Your task to perform on an android device: toggle translation in the chrome app Image 0: 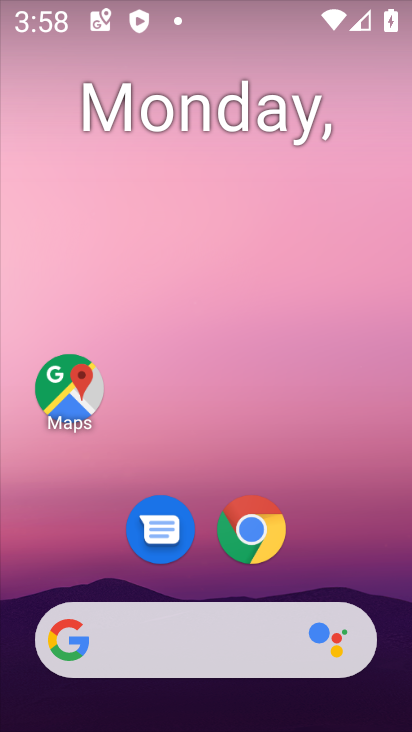
Step 0: click (254, 527)
Your task to perform on an android device: toggle translation in the chrome app Image 1: 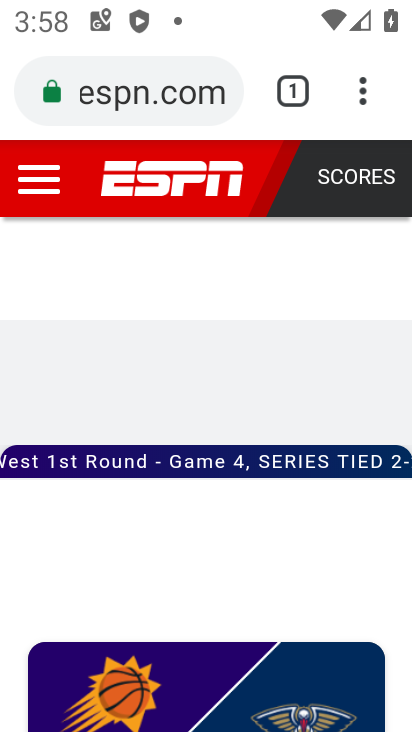
Step 1: click (361, 82)
Your task to perform on an android device: toggle translation in the chrome app Image 2: 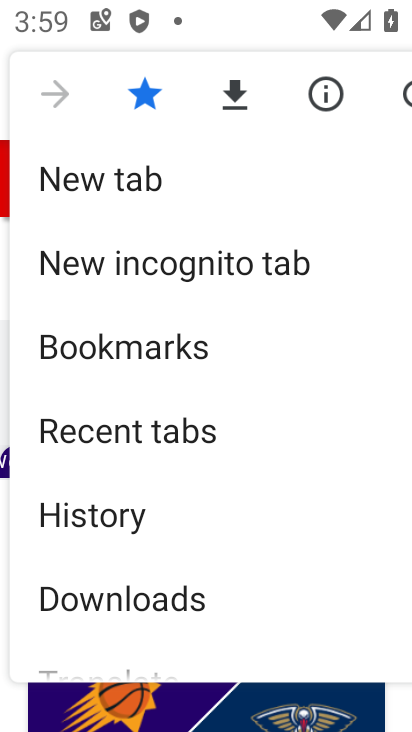
Step 2: drag from (167, 611) to (173, 342)
Your task to perform on an android device: toggle translation in the chrome app Image 3: 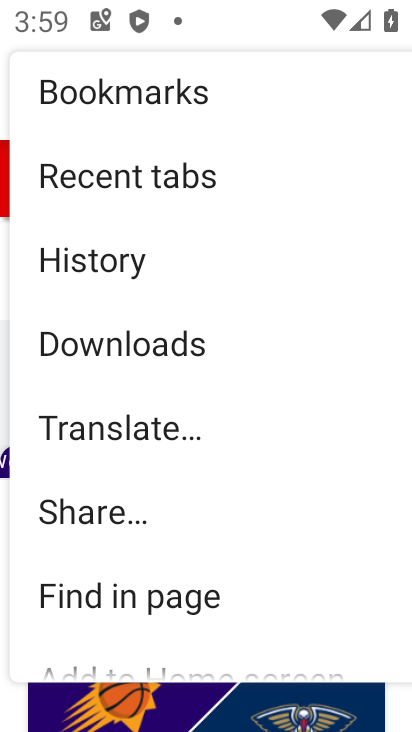
Step 3: drag from (149, 635) to (149, 377)
Your task to perform on an android device: toggle translation in the chrome app Image 4: 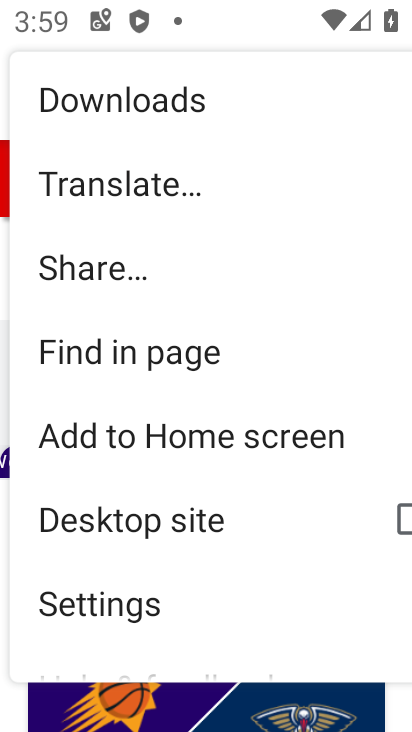
Step 4: click (102, 605)
Your task to perform on an android device: toggle translation in the chrome app Image 5: 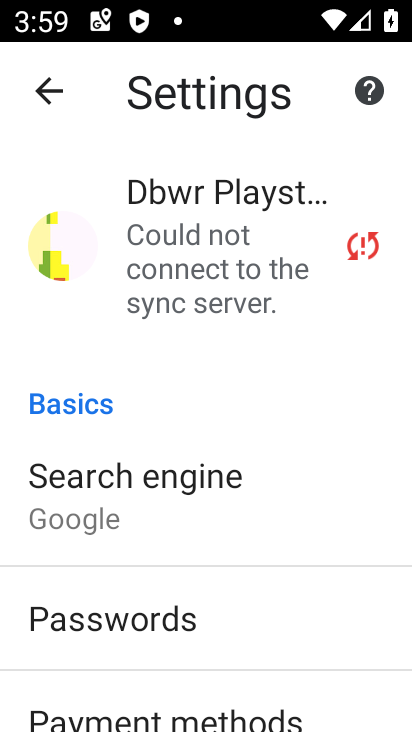
Step 5: drag from (176, 697) to (231, 353)
Your task to perform on an android device: toggle translation in the chrome app Image 6: 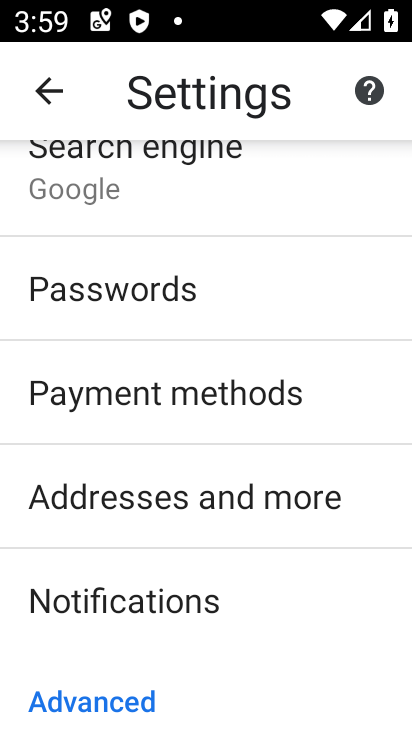
Step 6: drag from (178, 649) to (206, 381)
Your task to perform on an android device: toggle translation in the chrome app Image 7: 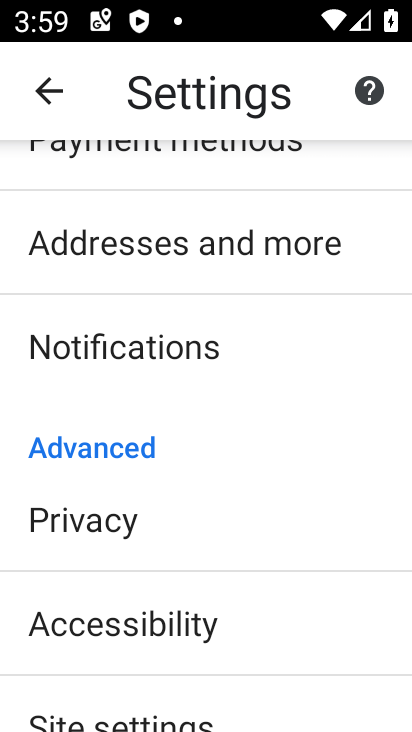
Step 7: drag from (130, 690) to (144, 317)
Your task to perform on an android device: toggle translation in the chrome app Image 8: 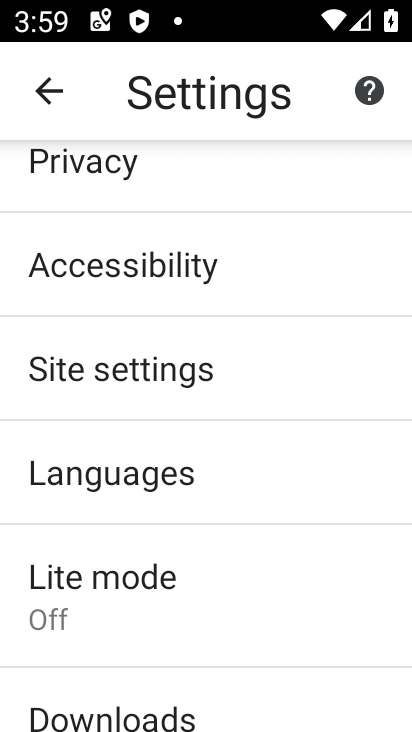
Step 8: click (119, 469)
Your task to perform on an android device: toggle translation in the chrome app Image 9: 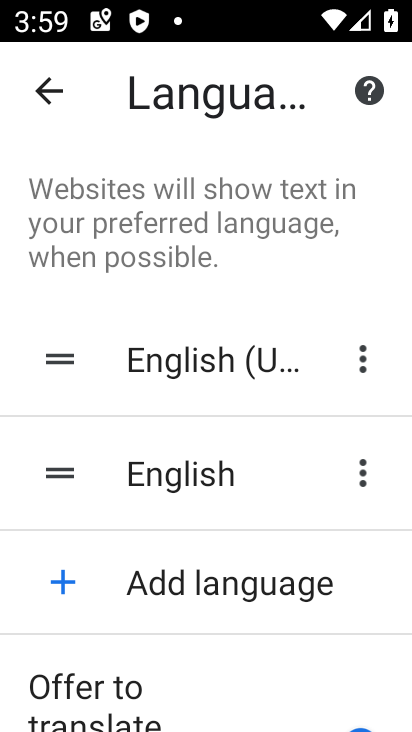
Step 9: drag from (274, 694) to (281, 358)
Your task to perform on an android device: toggle translation in the chrome app Image 10: 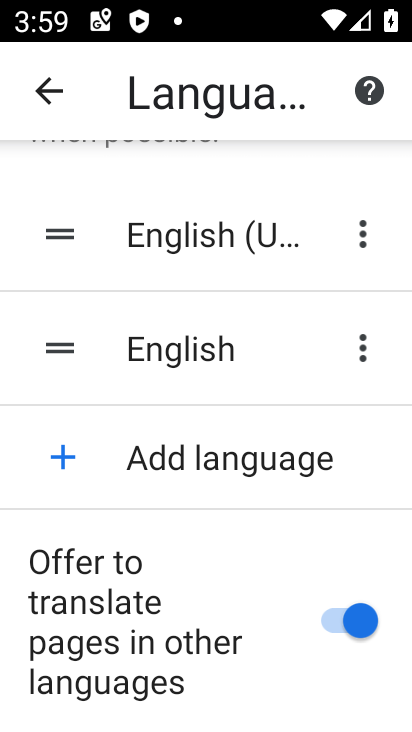
Step 10: click (333, 616)
Your task to perform on an android device: toggle translation in the chrome app Image 11: 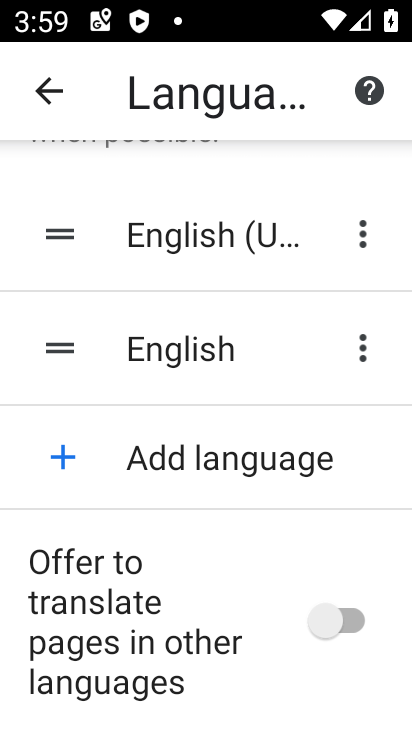
Step 11: task complete